Your task to perform on an android device: open chrome and create a bookmark for the current page Image 0: 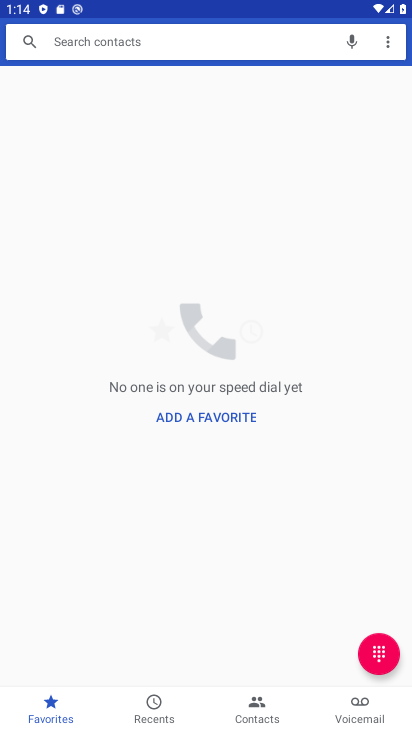
Step 0: press home button
Your task to perform on an android device: open chrome and create a bookmark for the current page Image 1: 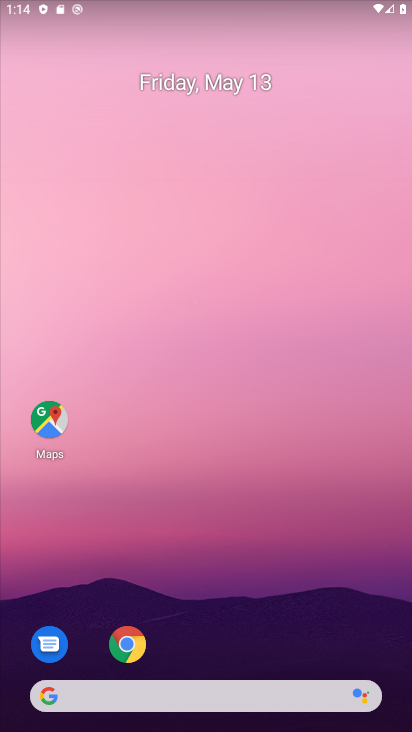
Step 1: click (114, 638)
Your task to perform on an android device: open chrome and create a bookmark for the current page Image 2: 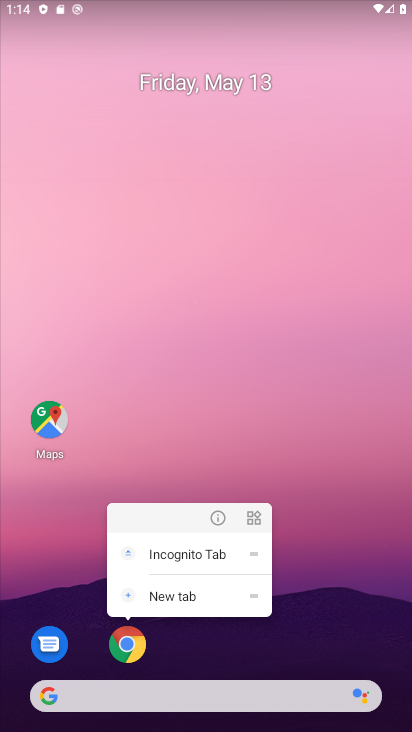
Step 2: click (129, 638)
Your task to perform on an android device: open chrome and create a bookmark for the current page Image 3: 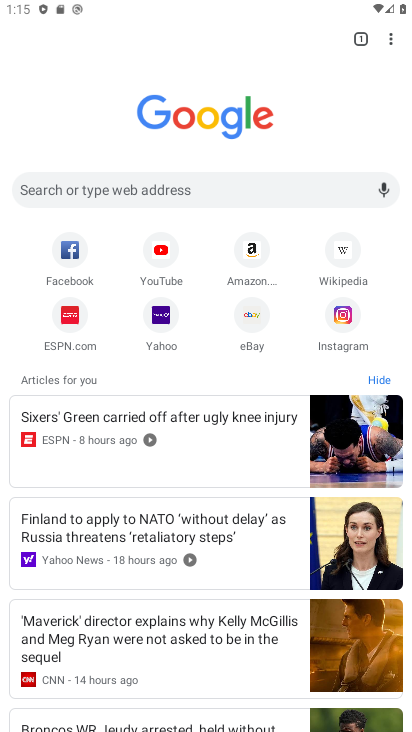
Step 3: click (387, 36)
Your task to perform on an android device: open chrome and create a bookmark for the current page Image 4: 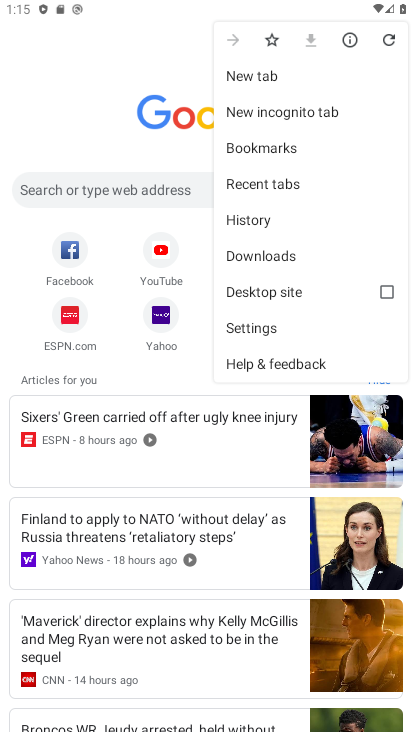
Step 4: click (270, 38)
Your task to perform on an android device: open chrome and create a bookmark for the current page Image 5: 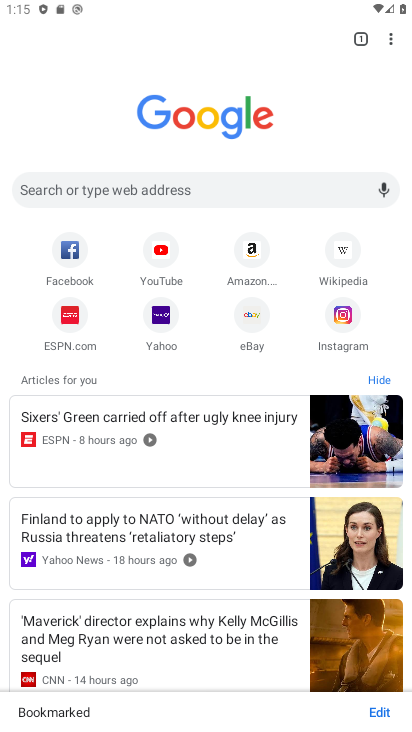
Step 5: task complete